Your task to perform on an android device: turn off data saver in the chrome app Image 0: 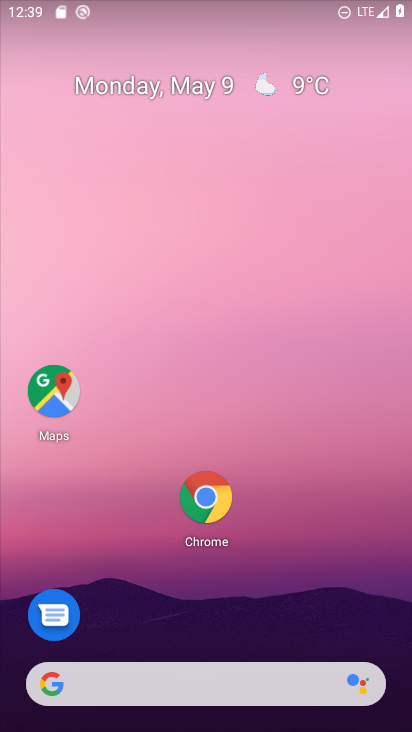
Step 0: click (213, 506)
Your task to perform on an android device: turn off data saver in the chrome app Image 1: 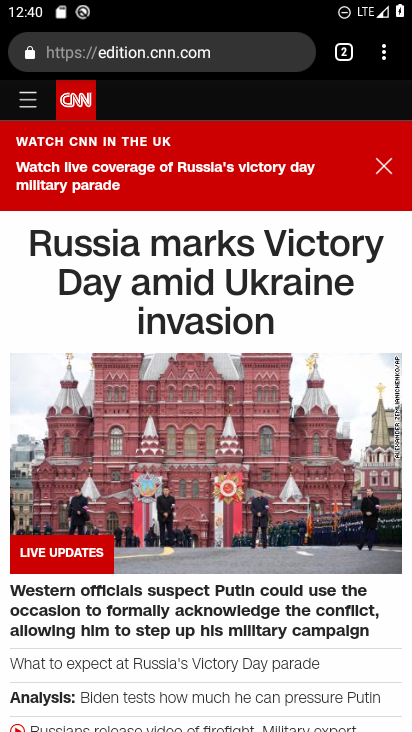
Step 1: drag from (383, 55) to (200, 598)
Your task to perform on an android device: turn off data saver in the chrome app Image 2: 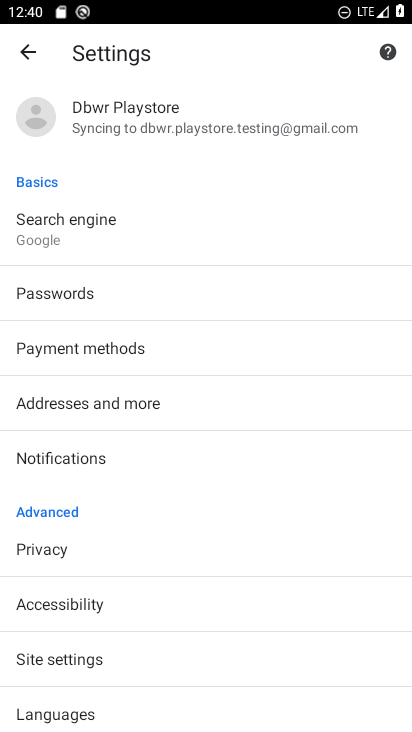
Step 2: drag from (120, 591) to (198, 209)
Your task to perform on an android device: turn off data saver in the chrome app Image 3: 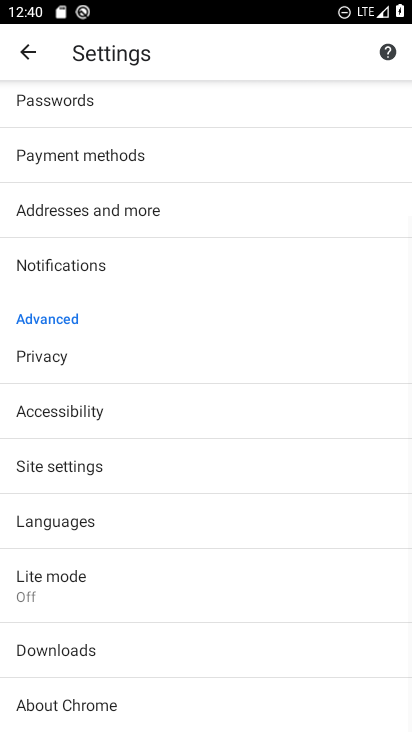
Step 3: click (81, 598)
Your task to perform on an android device: turn off data saver in the chrome app Image 4: 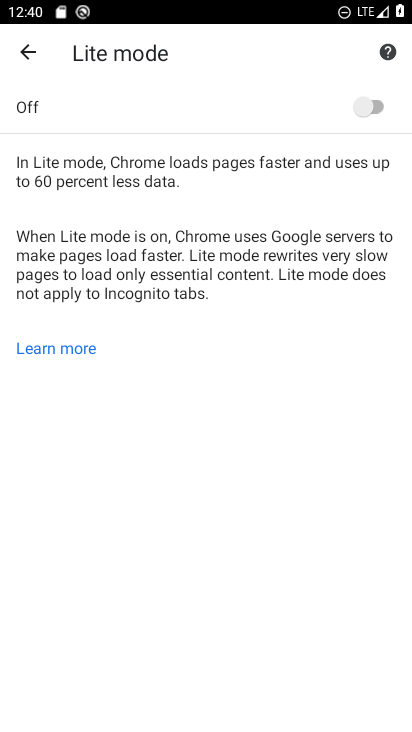
Step 4: task complete